Your task to perform on an android device: Open Yahoo.com Image 0: 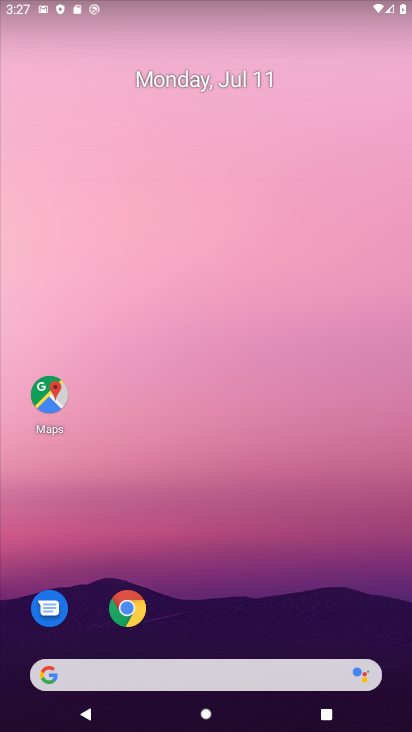
Step 0: drag from (109, 504) to (110, 386)
Your task to perform on an android device: Open Yahoo.com Image 1: 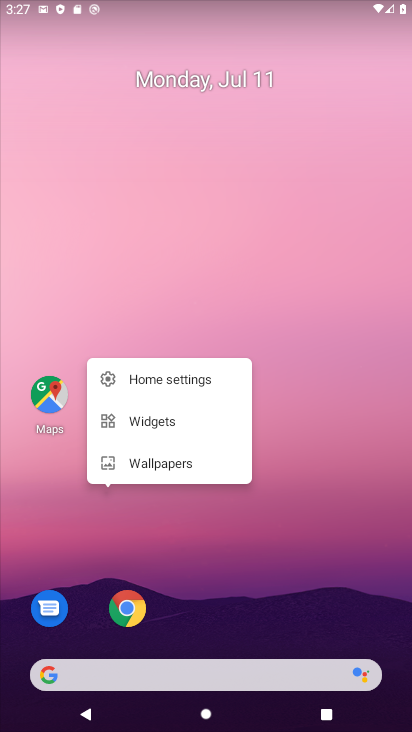
Step 1: click (139, 610)
Your task to perform on an android device: Open Yahoo.com Image 2: 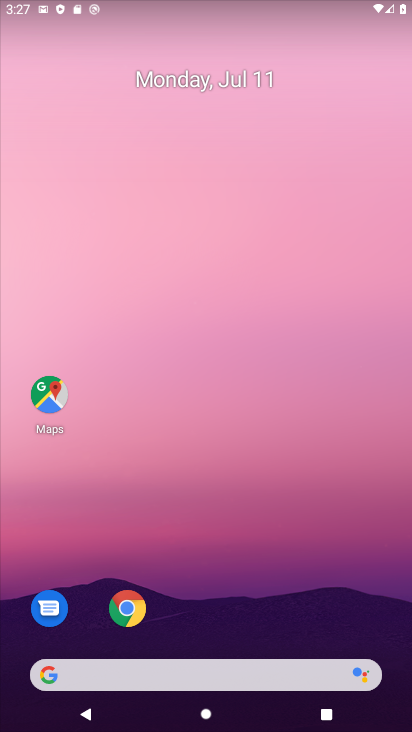
Step 2: click (129, 617)
Your task to perform on an android device: Open Yahoo.com Image 3: 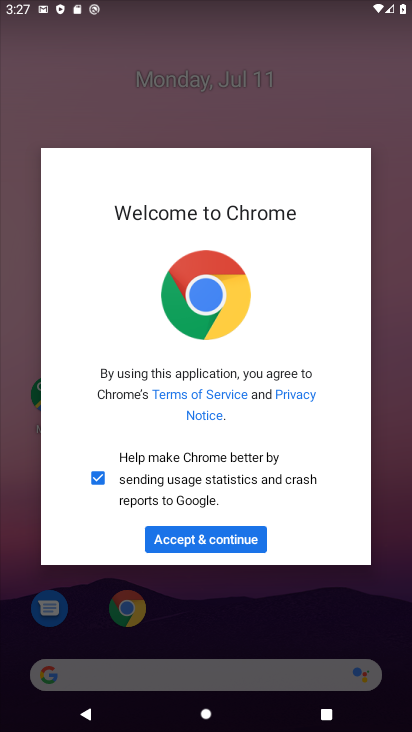
Step 3: click (170, 546)
Your task to perform on an android device: Open Yahoo.com Image 4: 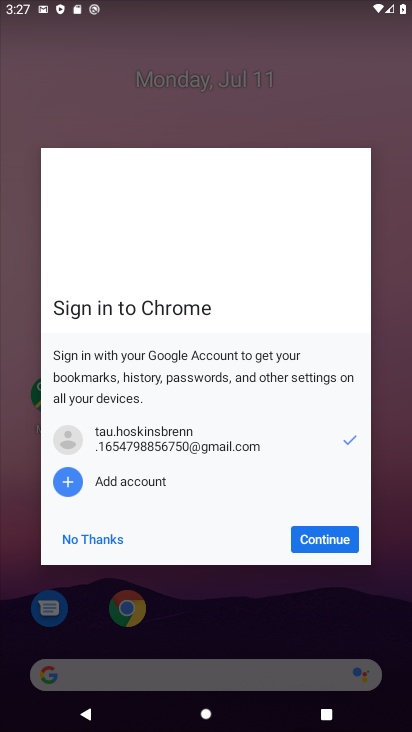
Step 4: click (323, 535)
Your task to perform on an android device: Open Yahoo.com Image 5: 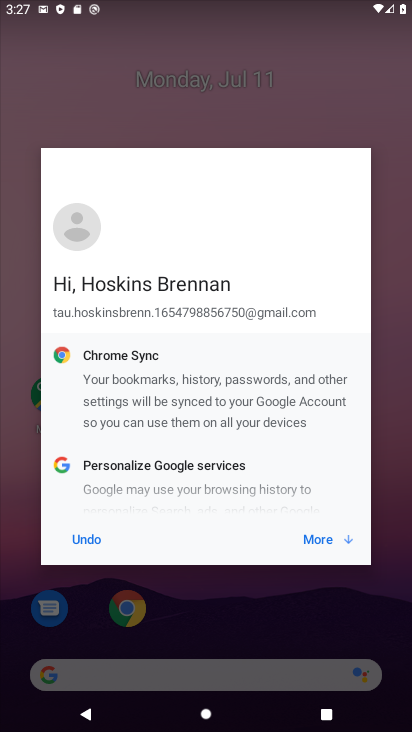
Step 5: click (323, 535)
Your task to perform on an android device: Open Yahoo.com Image 6: 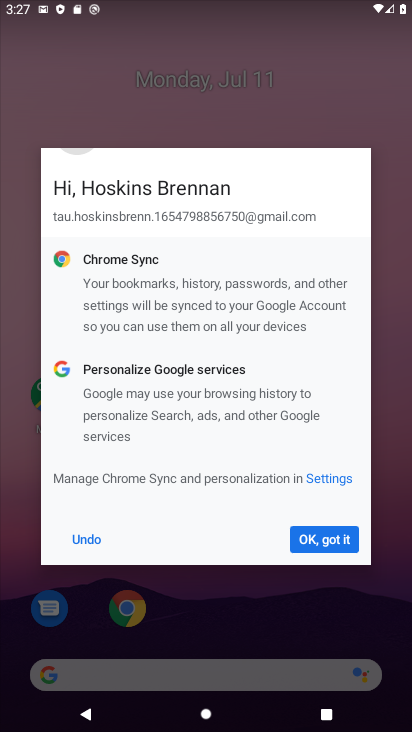
Step 6: click (353, 544)
Your task to perform on an android device: Open Yahoo.com Image 7: 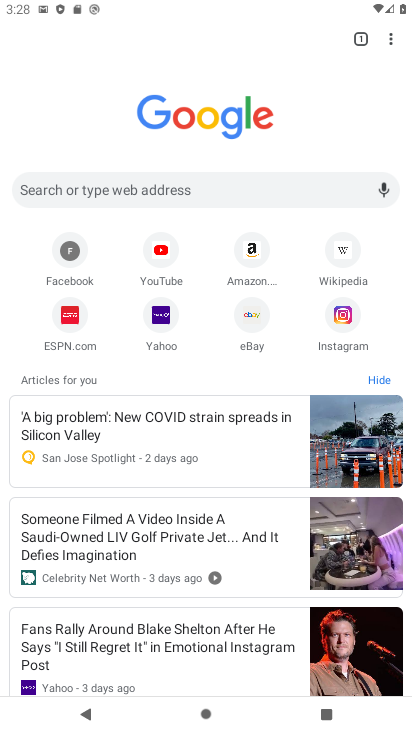
Step 7: click (172, 311)
Your task to perform on an android device: Open Yahoo.com Image 8: 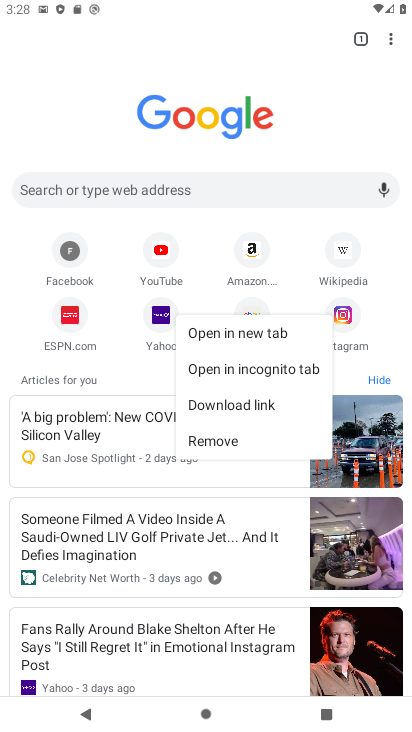
Step 8: click (161, 312)
Your task to perform on an android device: Open Yahoo.com Image 9: 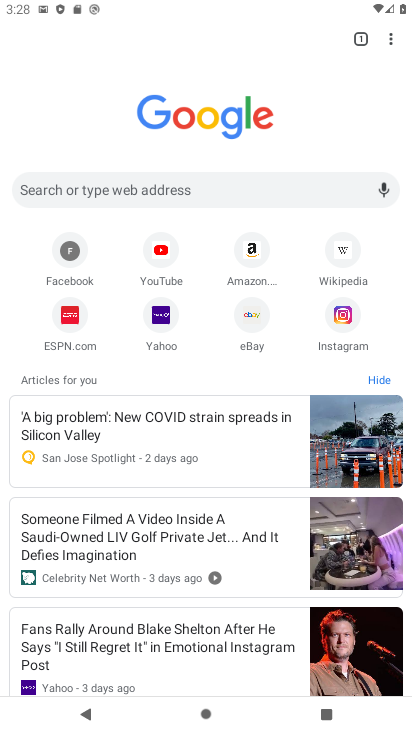
Step 9: click (150, 312)
Your task to perform on an android device: Open Yahoo.com Image 10: 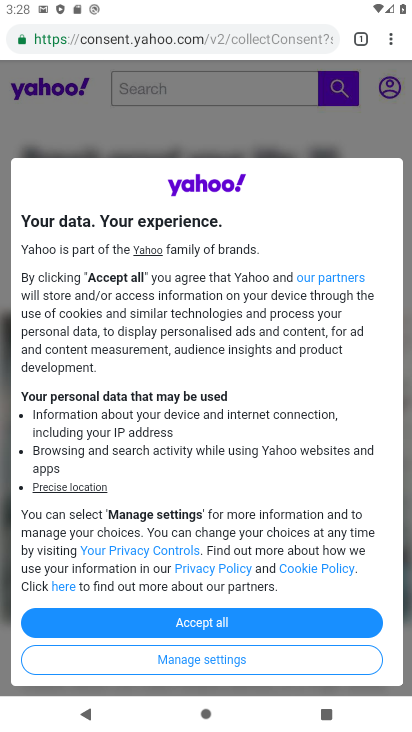
Step 10: task complete